Your task to perform on an android device: Play the last video I watched on Youtube Image 0: 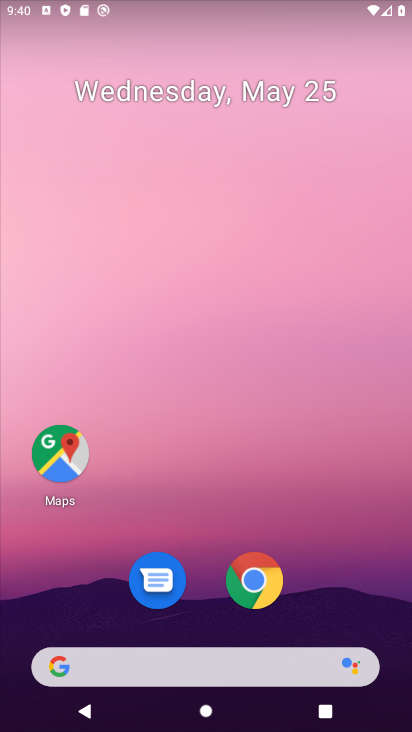
Step 0: drag from (45, 591) to (280, 143)
Your task to perform on an android device: Play the last video I watched on Youtube Image 1: 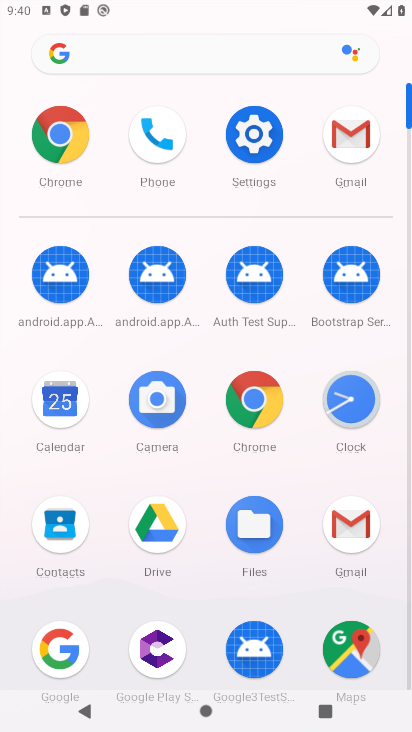
Step 1: drag from (125, 658) to (311, 157)
Your task to perform on an android device: Play the last video I watched on Youtube Image 2: 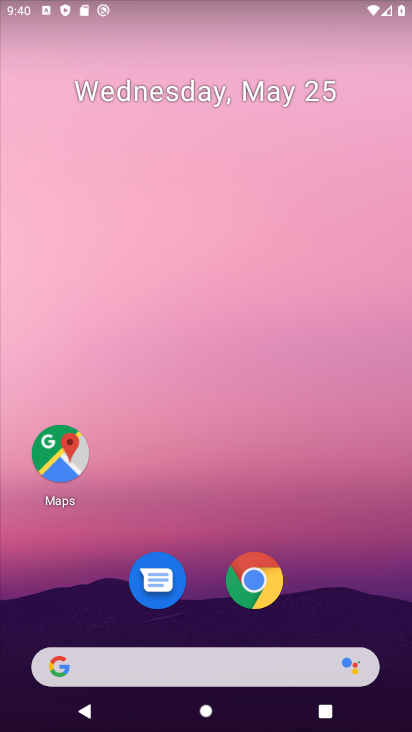
Step 2: drag from (79, 526) to (316, 161)
Your task to perform on an android device: Play the last video I watched on Youtube Image 3: 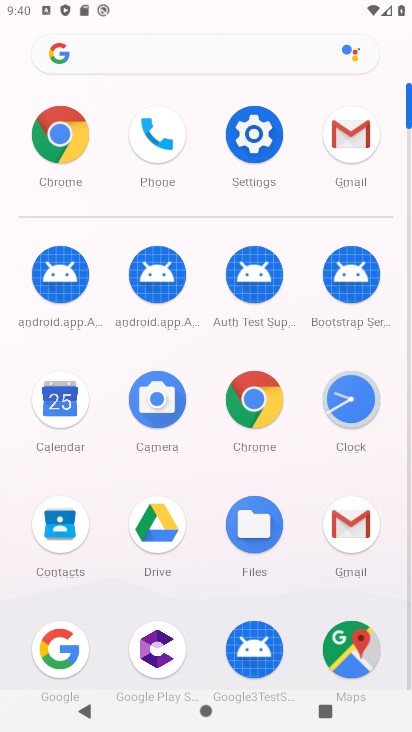
Step 3: drag from (2, 458) to (291, 181)
Your task to perform on an android device: Play the last video I watched on Youtube Image 4: 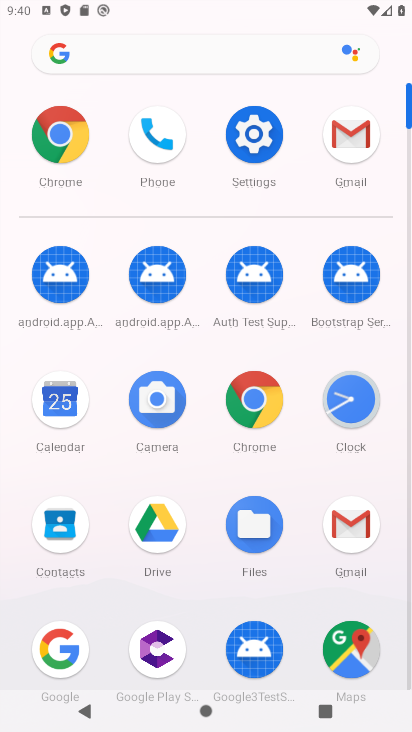
Step 4: drag from (20, 534) to (291, 112)
Your task to perform on an android device: Play the last video I watched on Youtube Image 5: 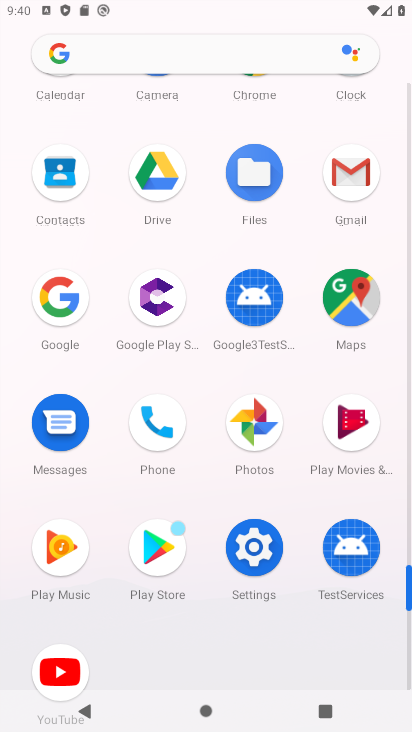
Step 5: drag from (54, 496) to (265, 196)
Your task to perform on an android device: Play the last video I watched on Youtube Image 6: 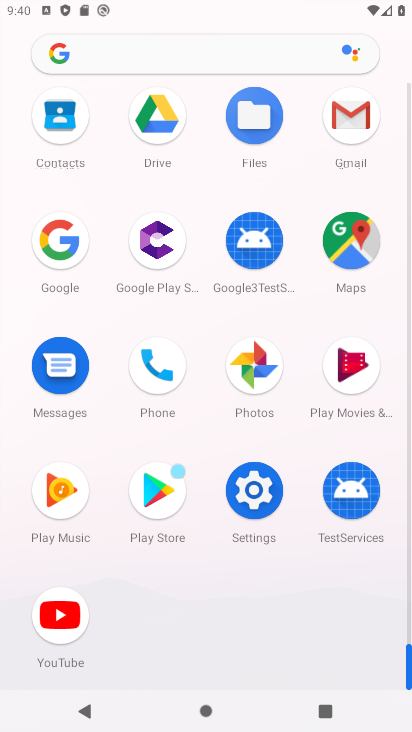
Step 6: click (57, 645)
Your task to perform on an android device: Play the last video I watched on Youtube Image 7: 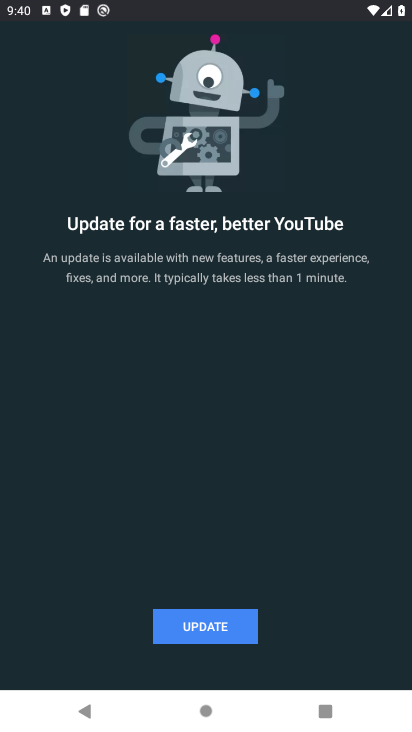
Step 7: task complete